Your task to perform on an android device: Go to settings Image 0: 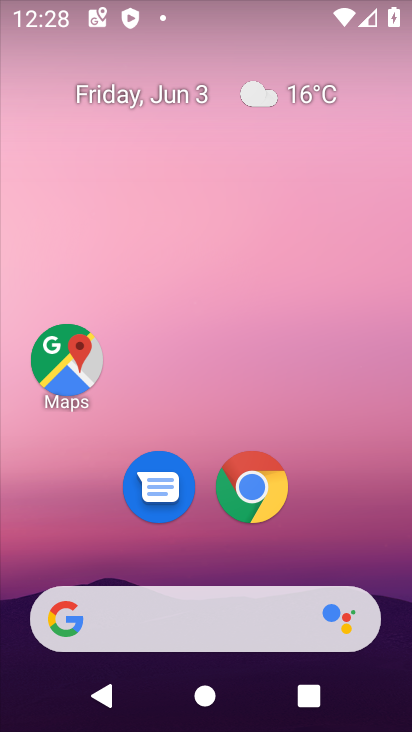
Step 0: drag from (216, 616) to (379, 7)
Your task to perform on an android device: Go to settings Image 1: 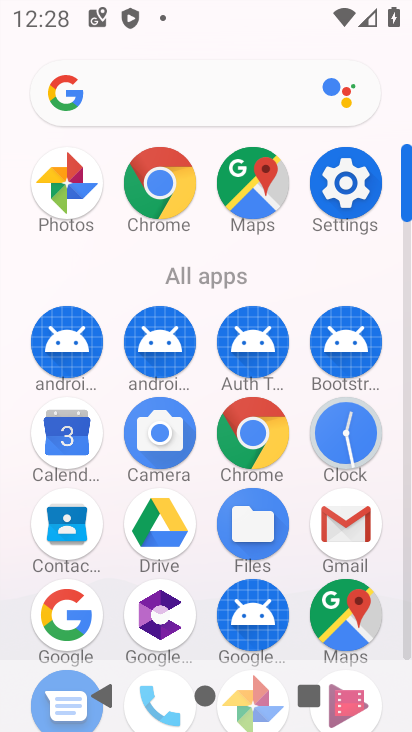
Step 1: click (346, 167)
Your task to perform on an android device: Go to settings Image 2: 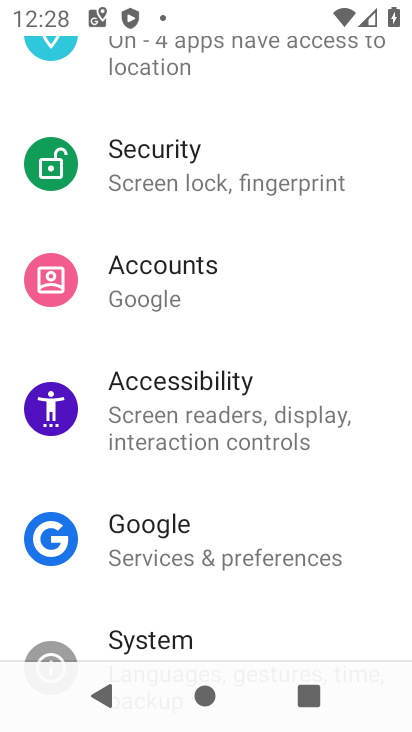
Step 2: task complete